Your task to perform on an android device: Go to battery settings Image 0: 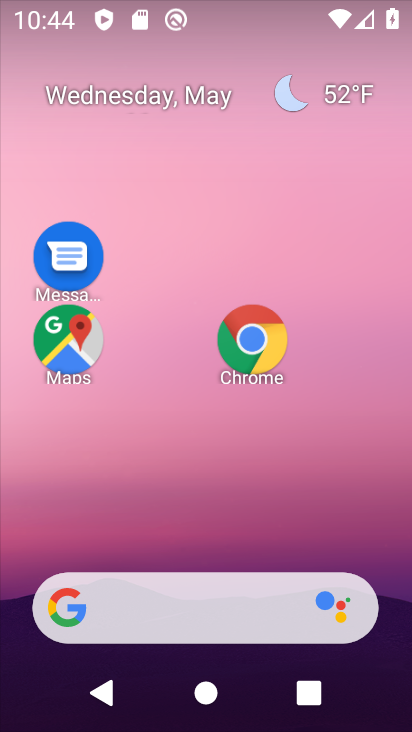
Step 0: drag from (204, 530) to (212, 110)
Your task to perform on an android device: Go to battery settings Image 1: 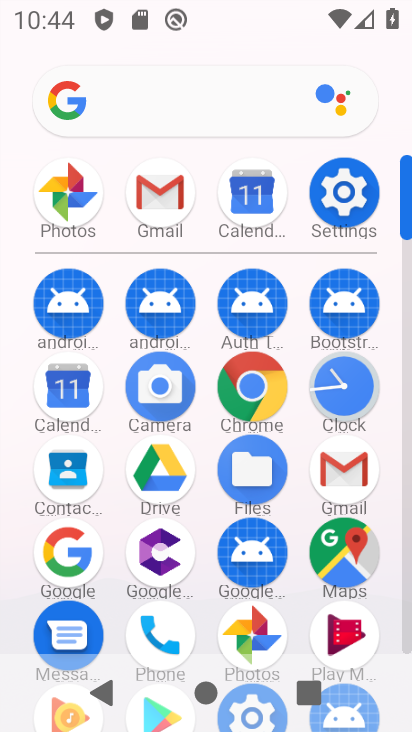
Step 1: click (342, 186)
Your task to perform on an android device: Go to battery settings Image 2: 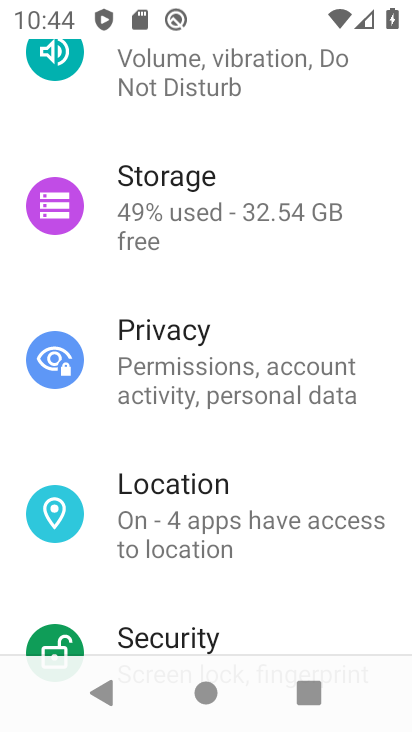
Step 2: drag from (190, 182) to (209, 581)
Your task to perform on an android device: Go to battery settings Image 3: 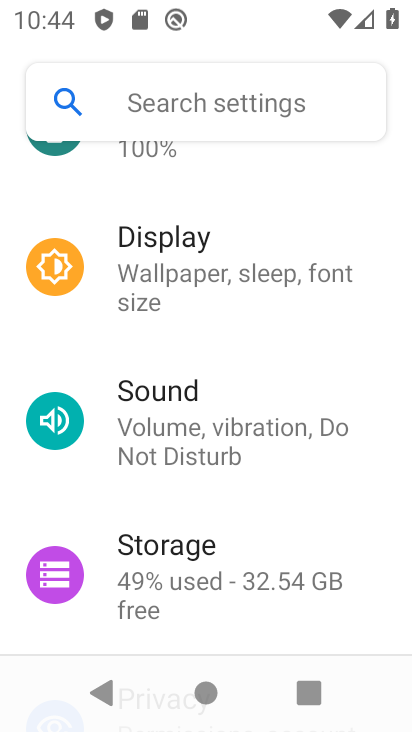
Step 3: drag from (180, 167) to (201, 359)
Your task to perform on an android device: Go to battery settings Image 4: 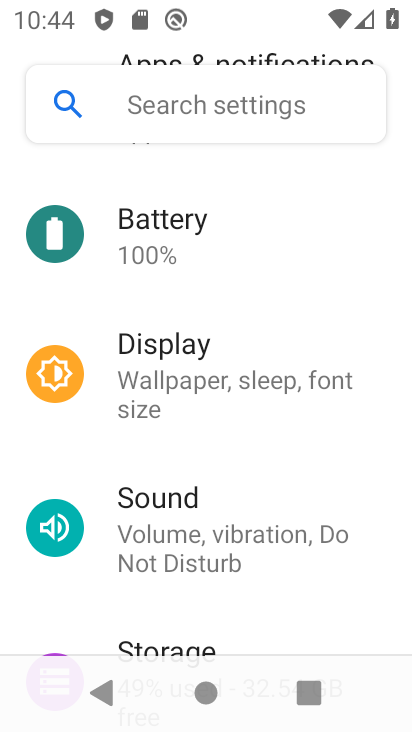
Step 4: click (169, 244)
Your task to perform on an android device: Go to battery settings Image 5: 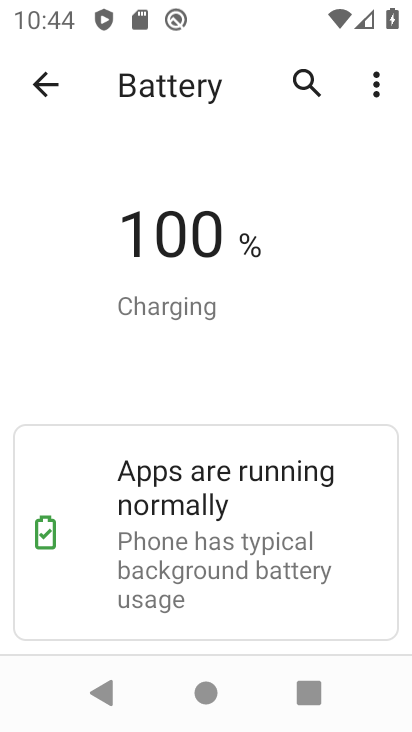
Step 5: task complete